Your task to perform on an android device: Open CNN.com Image 0: 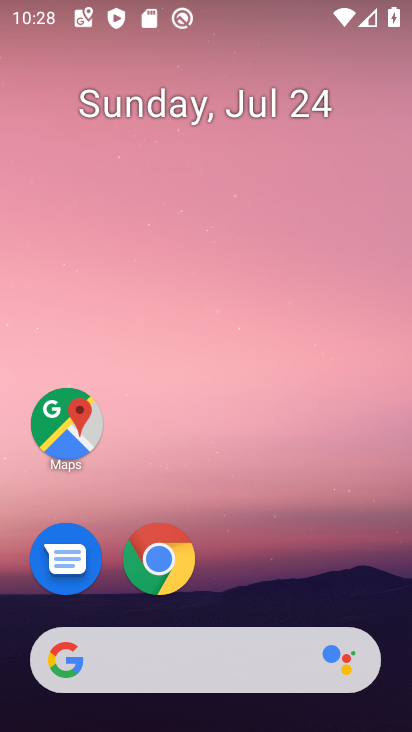
Step 0: click (165, 539)
Your task to perform on an android device: Open CNN.com Image 1: 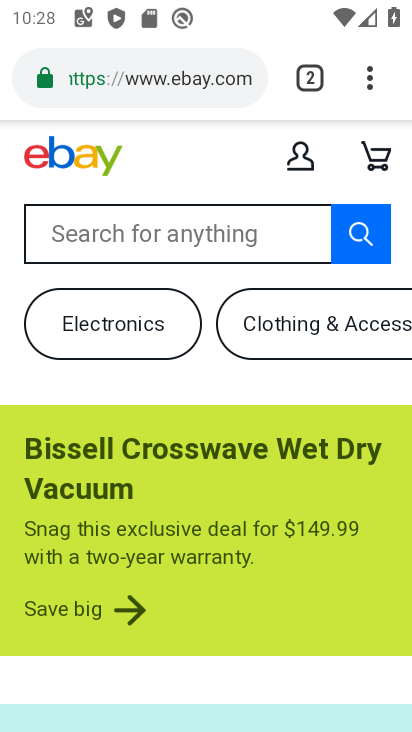
Step 1: click (306, 87)
Your task to perform on an android device: Open CNN.com Image 2: 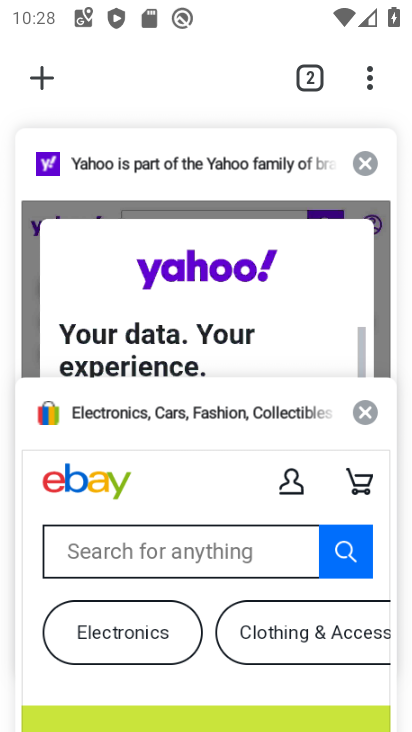
Step 2: click (42, 73)
Your task to perform on an android device: Open CNN.com Image 3: 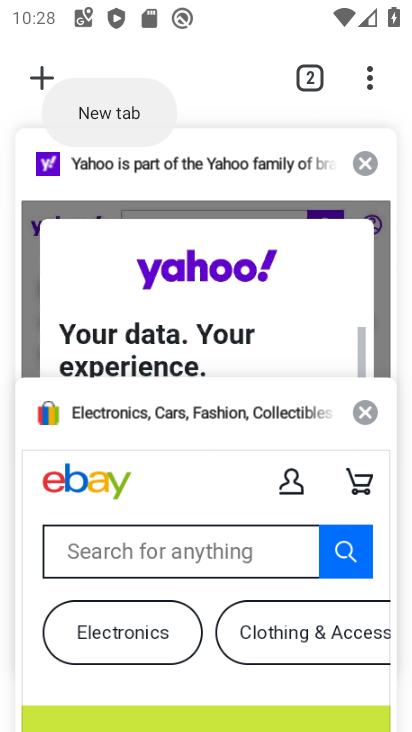
Step 3: click (42, 73)
Your task to perform on an android device: Open CNN.com Image 4: 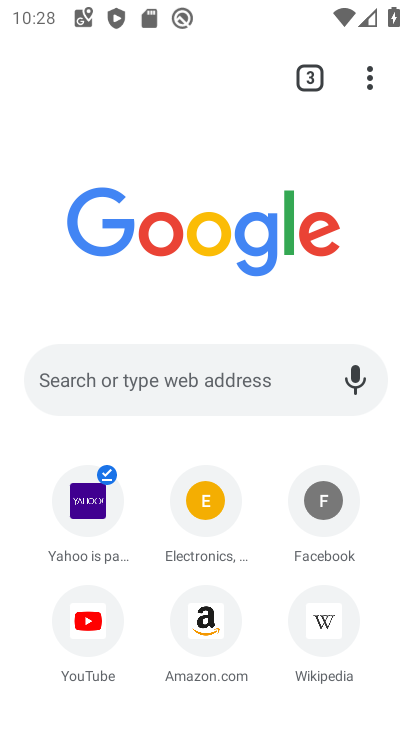
Step 4: click (131, 380)
Your task to perform on an android device: Open CNN.com Image 5: 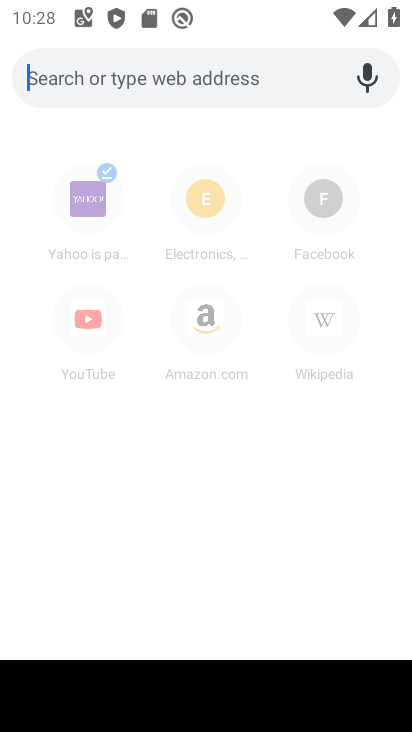
Step 5: click (100, 72)
Your task to perform on an android device: Open CNN.com Image 6: 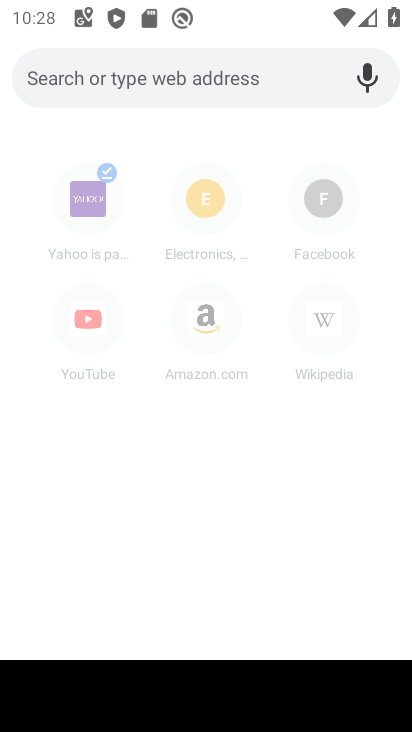
Step 6: click (107, 77)
Your task to perform on an android device: Open CNN.com Image 7: 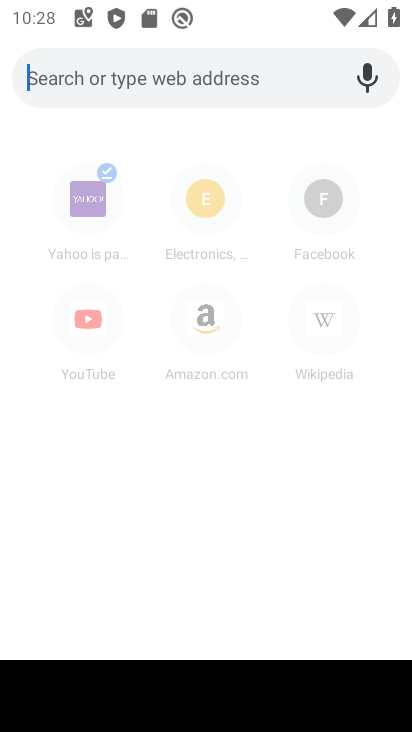
Step 7: type "cnn.com"
Your task to perform on an android device: Open CNN.com Image 8: 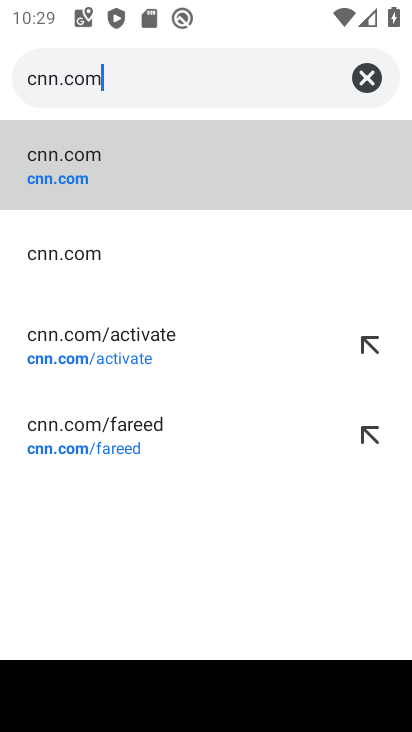
Step 8: click (162, 175)
Your task to perform on an android device: Open CNN.com Image 9: 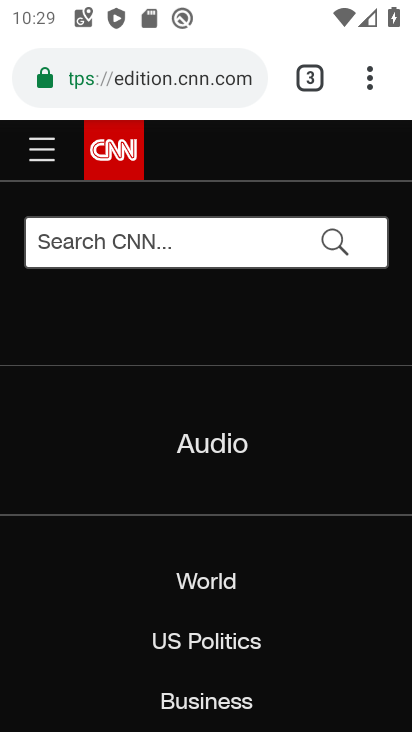
Step 9: task complete